Your task to perform on an android device: set the stopwatch Image 0: 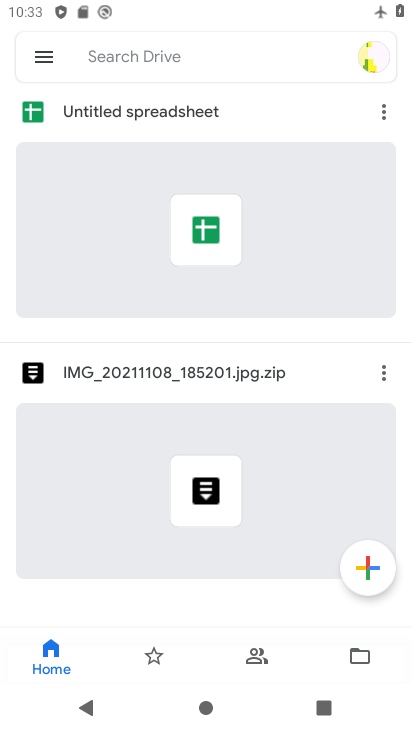
Step 0: press home button
Your task to perform on an android device: set the stopwatch Image 1: 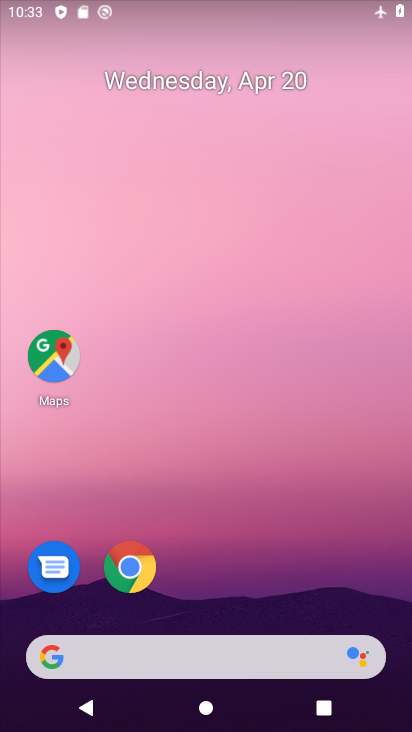
Step 1: drag from (211, 491) to (256, 261)
Your task to perform on an android device: set the stopwatch Image 2: 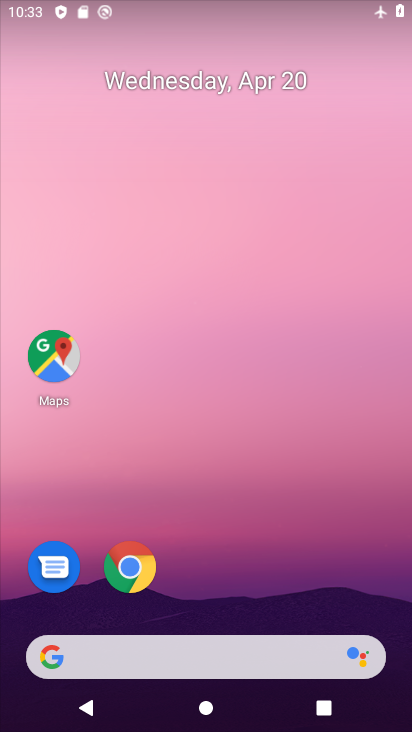
Step 2: drag from (193, 653) to (266, 261)
Your task to perform on an android device: set the stopwatch Image 3: 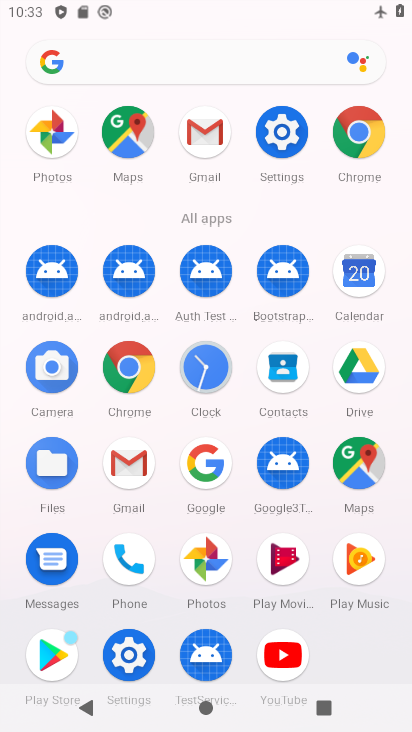
Step 3: click (197, 359)
Your task to perform on an android device: set the stopwatch Image 4: 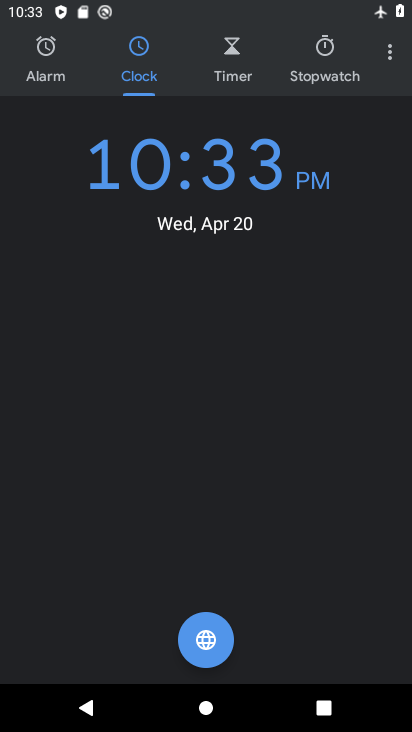
Step 4: click (338, 51)
Your task to perform on an android device: set the stopwatch Image 5: 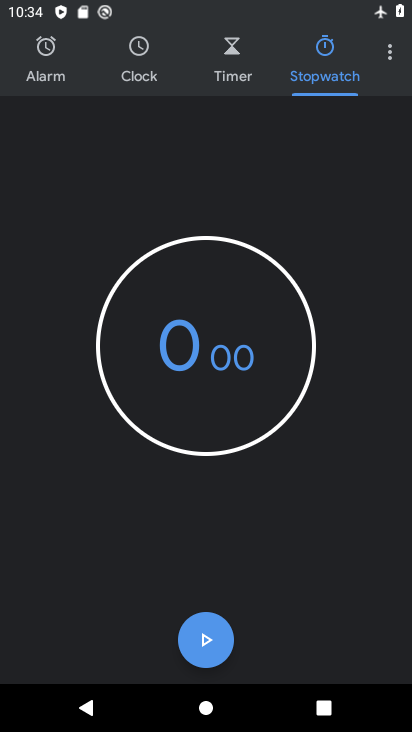
Step 5: click (210, 645)
Your task to perform on an android device: set the stopwatch Image 6: 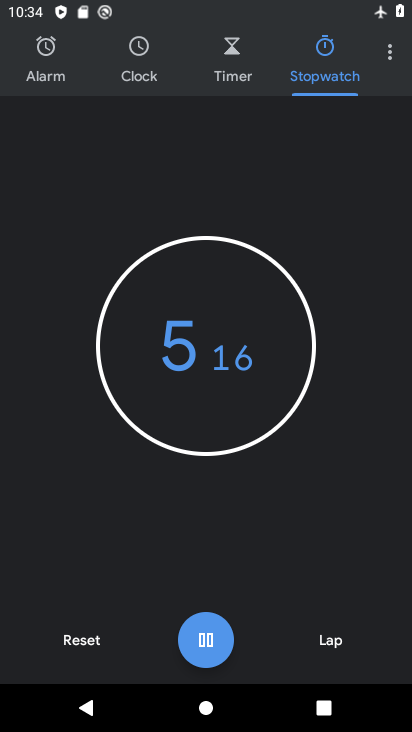
Step 6: click (205, 640)
Your task to perform on an android device: set the stopwatch Image 7: 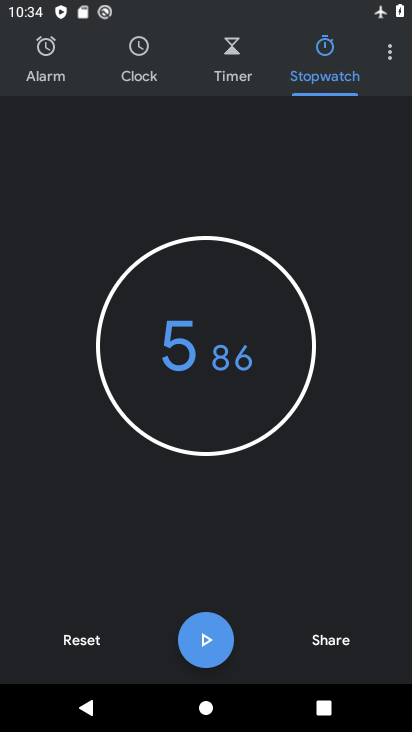
Step 7: click (85, 635)
Your task to perform on an android device: set the stopwatch Image 8: 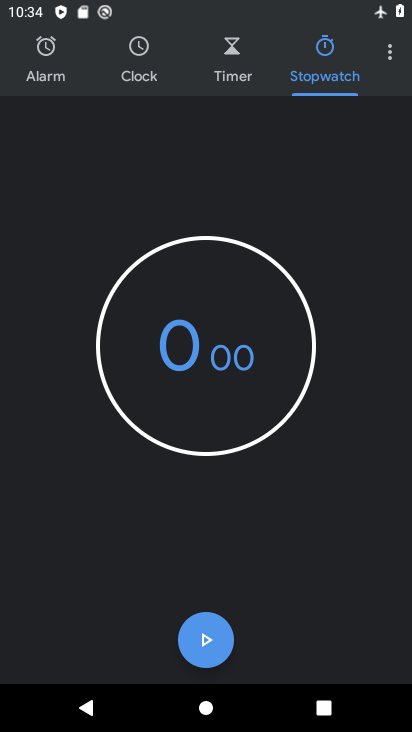
Step 8: task complete